Your task to perform on an android device: Is it going to rain today? Image 0: 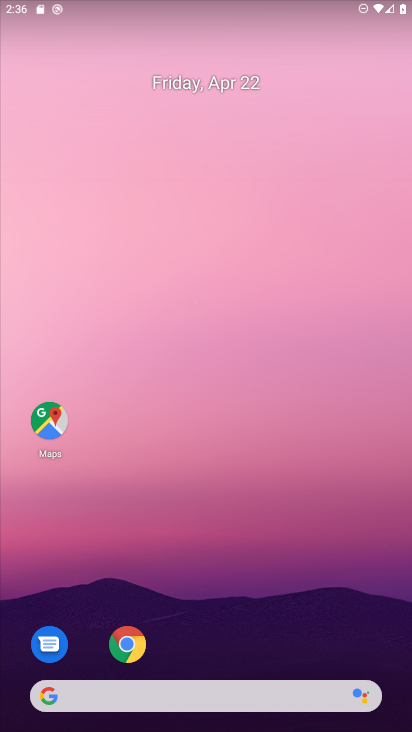
Step 0: drag from (253, 596) to (289, 68)
Your task to perform on an android device: Is it going to rain today? Image 1: 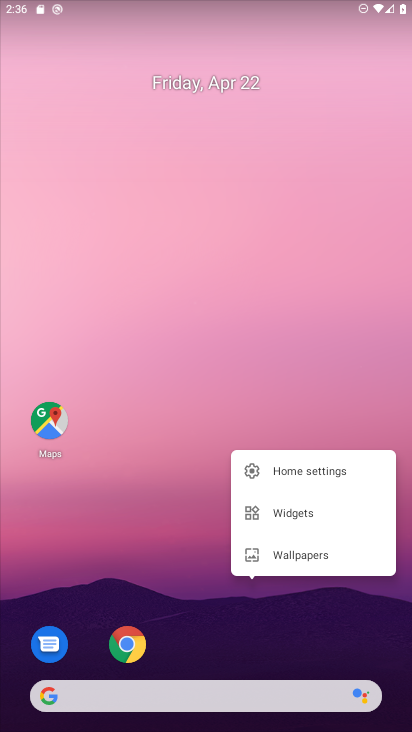
Step 1: click (200, 419)
Your task to perform on an android device: Is it going to rain today? Image 2: 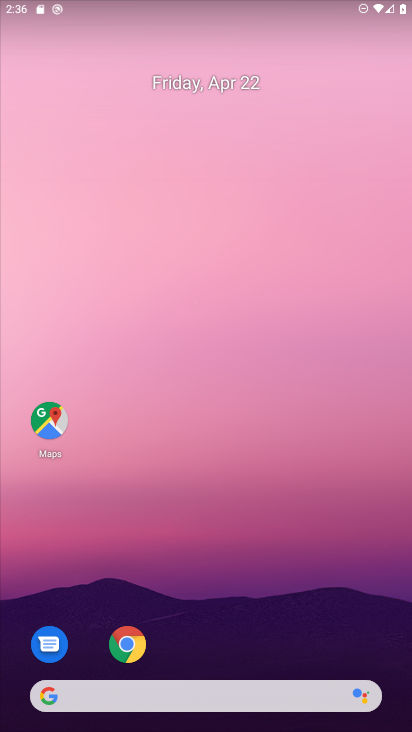
Step 2: drag from (179, 517) to (201, 82)
Your task to perform on an android device: Is it going to rain today? Image 3: 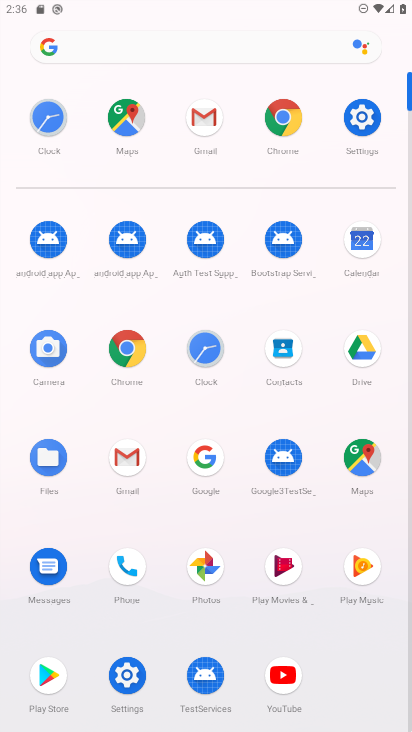
Step 3: click (284, 123)
Your task to perform on an android device: Is it going to rain today? Image 4: 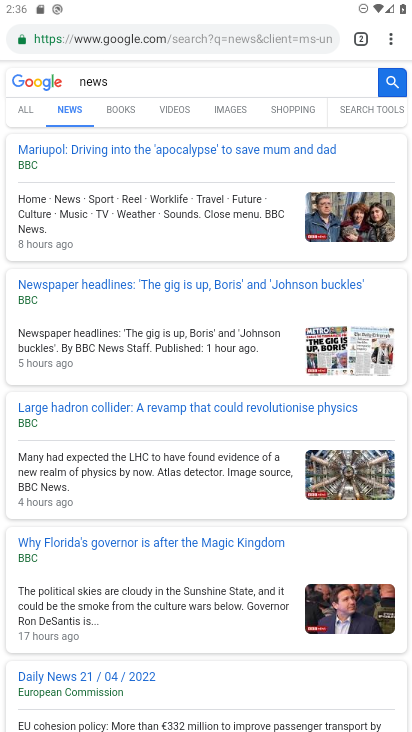
Step 4: click (253, 81)
Your task to perform on an android device: Is it going to rain today? Image 5: 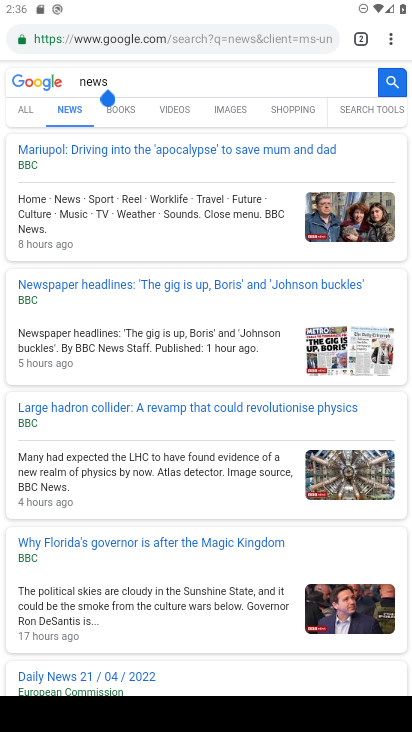
Step 5: click (193, 34)
Your task to perform on an android device: Is it going to rain today? Image 6: 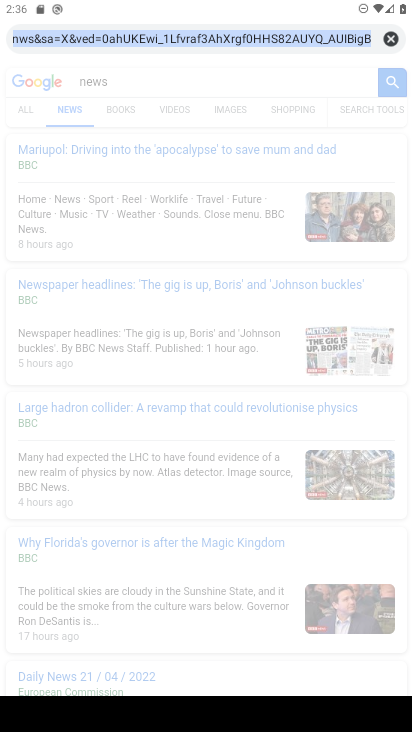
Step 6: type "weather"
Your task to perform on an android device: Is it going to rain today? Image 7: 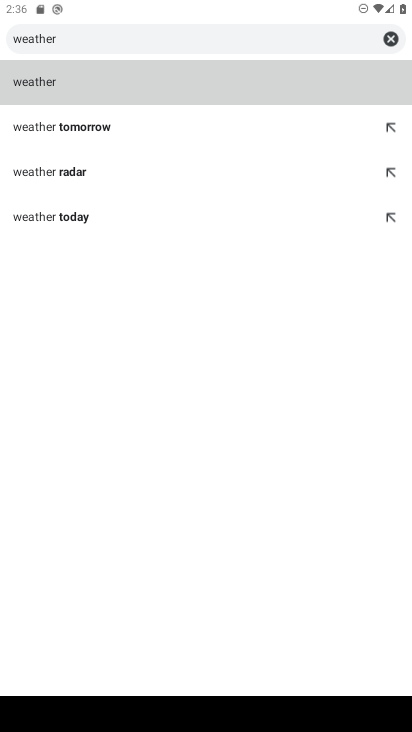
Step 7: click (23, 78)
Your task to perform on an android device: Is it going to rain today? Image 8: 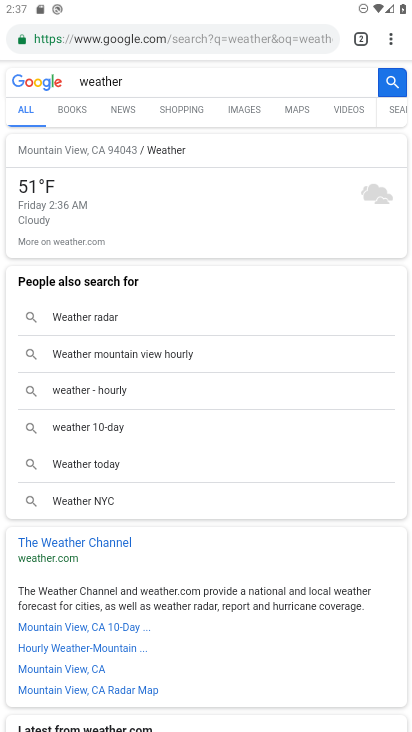
Step 8: drag from (251, 460) to (270, 592)
Your task to perform on an android device: Is it going to rain today? Image 9: 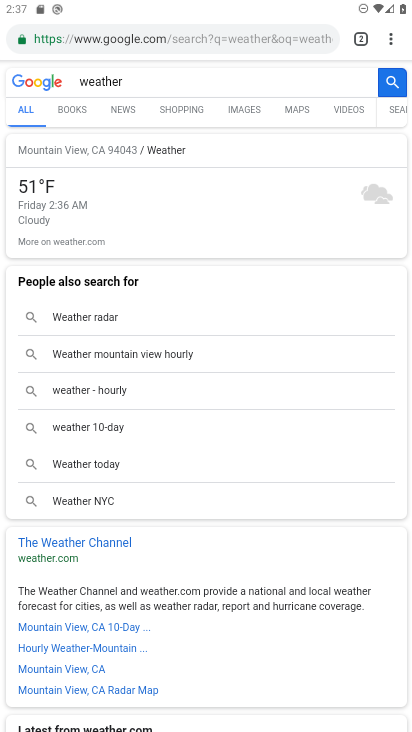
Step 9: click (203, 212)
Your task to perform on an android device: Is it going to rain today? Image 10: 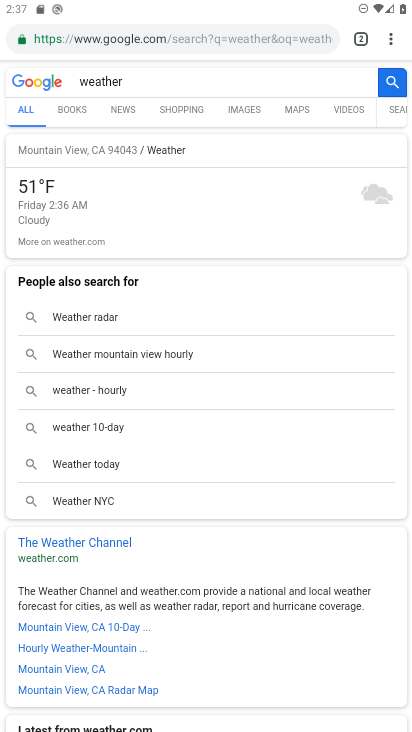
Step 10: task complete